Your task to perform on an android device: visit the assistant section in the google photos Image 0: 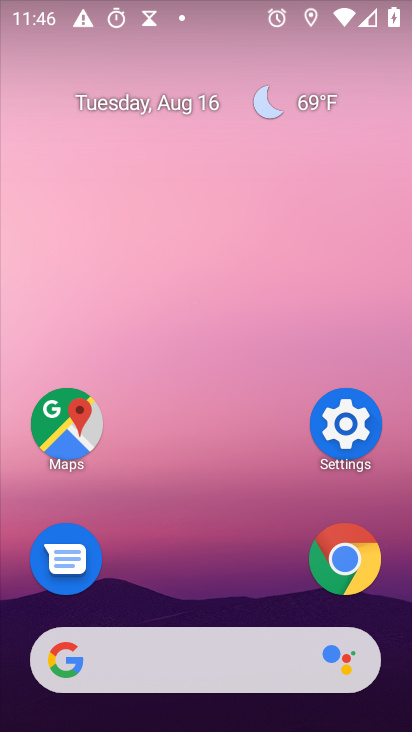
Step 0: drag from (215, 619) to (328, 155)
Your task to perform on an android device: visit the assistant section in the google photos Image 1: 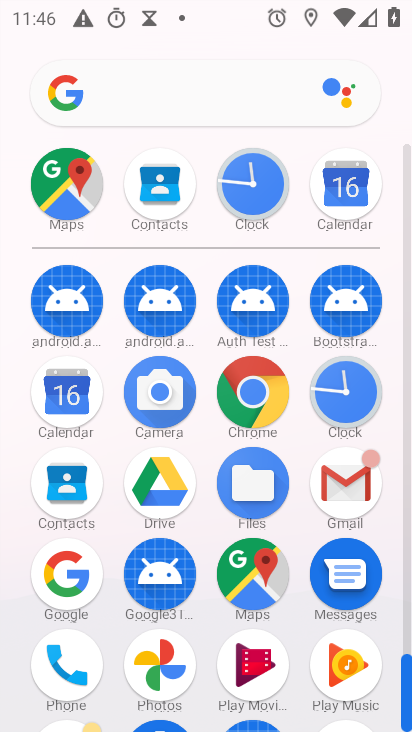
Step 1: click (161, 657)
Your task to perform on an android device: visit the assistant section in the google photos Image 2: 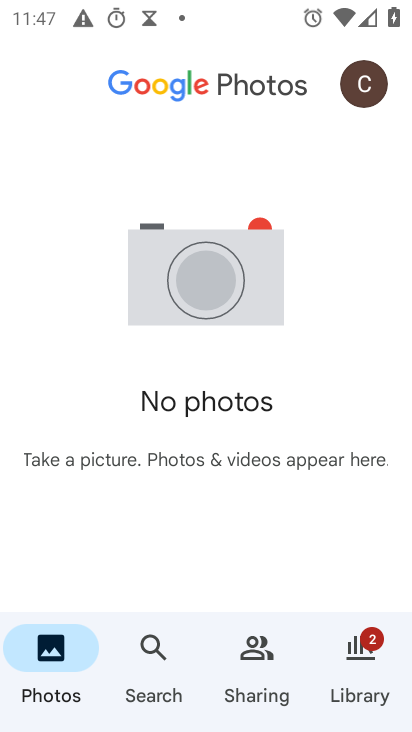
Step 2: task complete